Your task to perform on an android device: Go to Google maps Image 0: 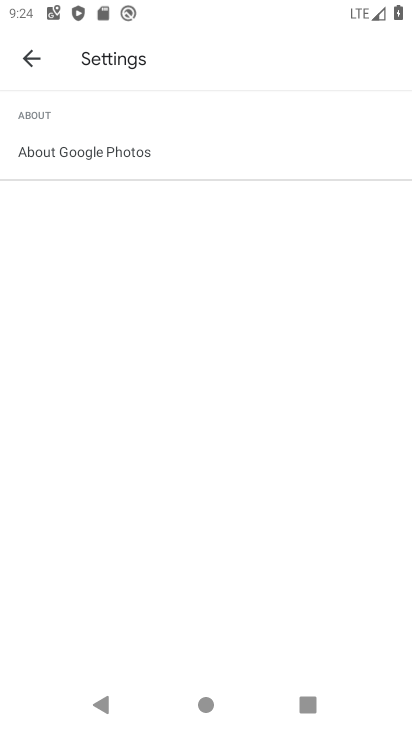
Step 0: press home button
Your task to perform on an android device: Go to Google maps Image 1: 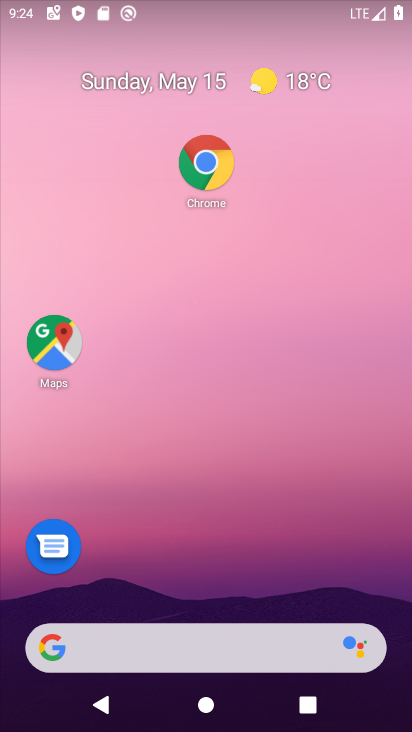
Step 1: click (57, 327)
Your task to perform on an android device: Go to Google maps Image 2: 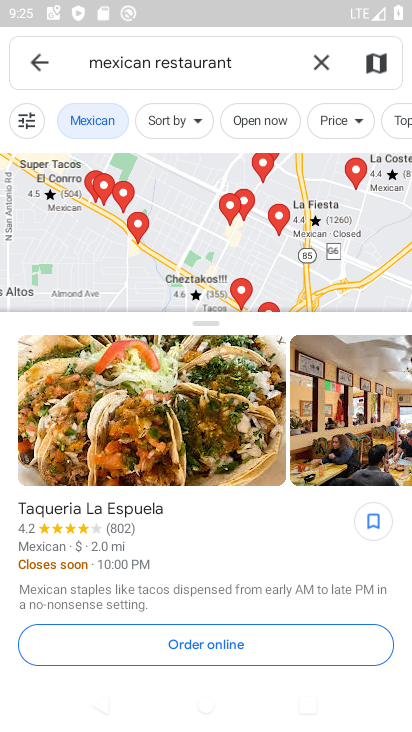
Step 2: task complete